Your task to perform on an android device: Open Wikipedia Image 0: 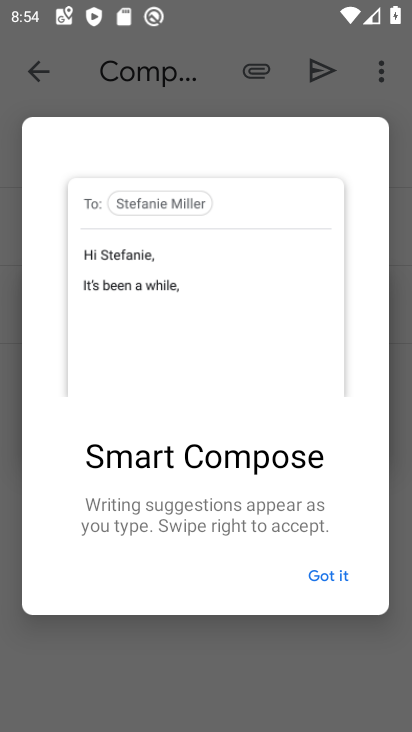
Step 0: press home button
Your task to perform on an android device: Open Wikipedia Image 1: 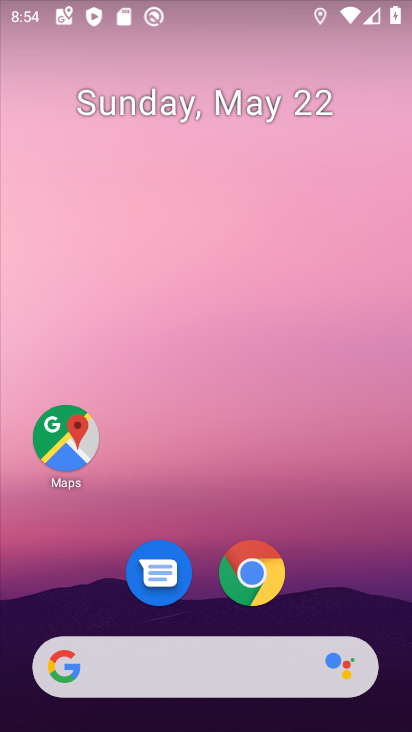
Step 1: drag from (250, 656) to (314, 15)
Your task to perform on an android device: Open Wikipedia Image 2: 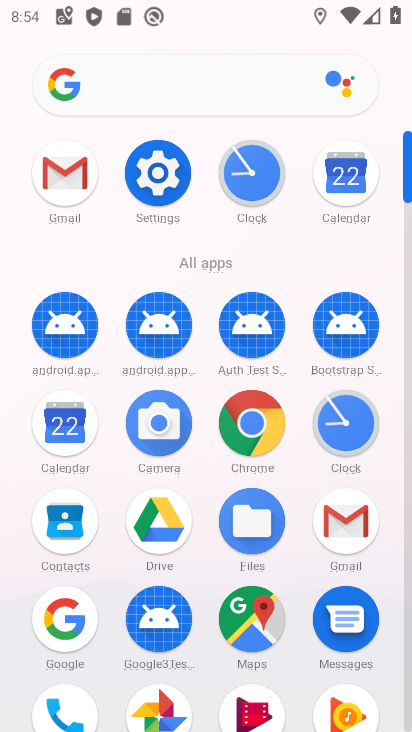
Step 2: click (260, 427)
Your task to perform on an android device: Open Wikipedia Image 3: 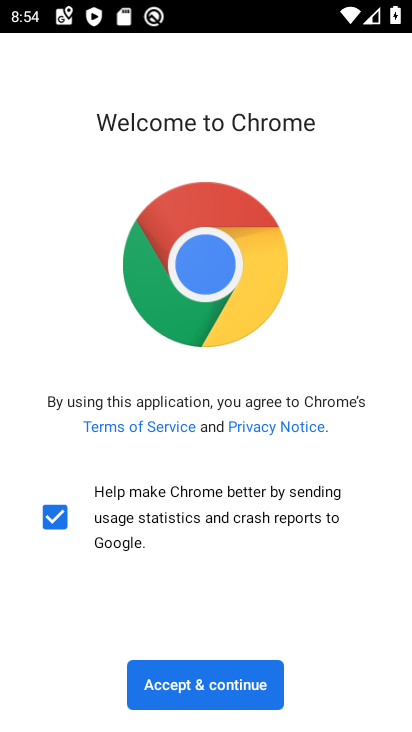
Step 3: click (235, 696)
Your task to perform on an android device: Open Wikipedia Image 4: 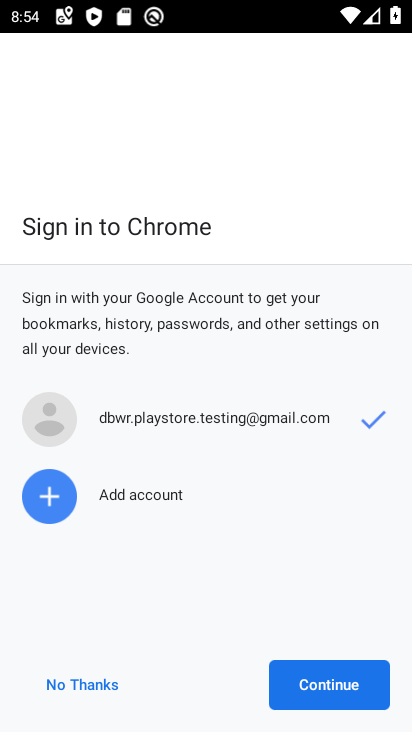
Step 4: click (108, 682)
Your task to perform on an android device: Open Wikipedia Image 5: 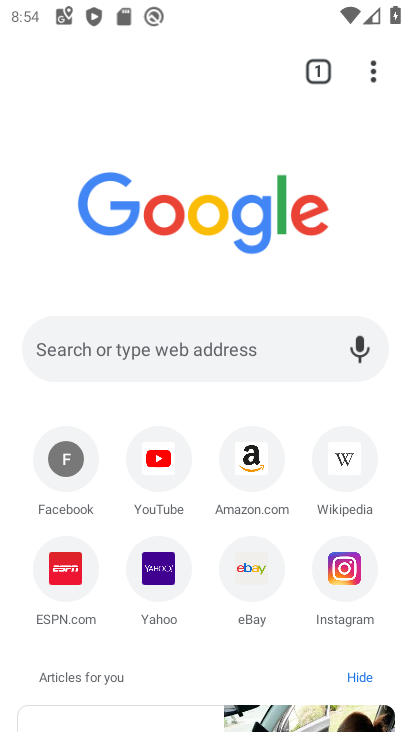
Step 5: click (346, 468)
Your task to perform on an android device: Open Wikipedia Image 6: 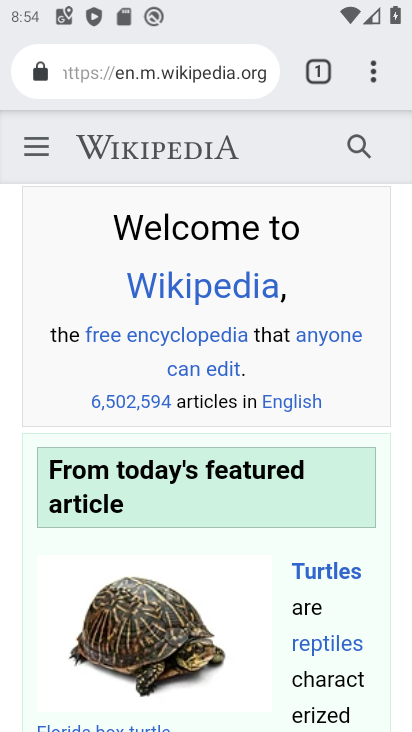
Step 6: task complete